Your task to perform on an android device: What is the news today? Image 0: 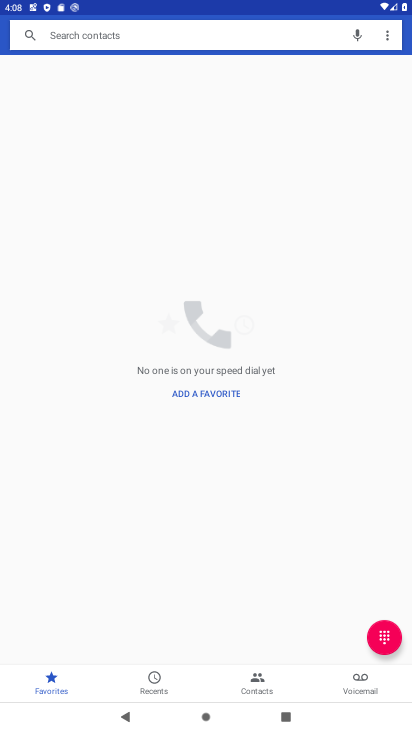
Step 0: press home button
Your task to perform on an android device: What is the news today? Image 1: 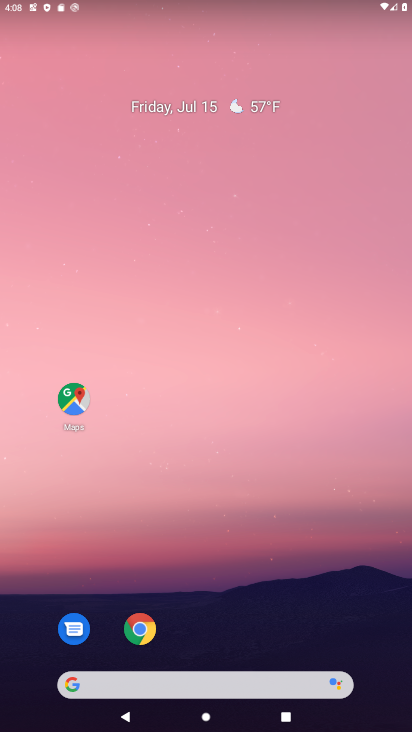
Step 1: click (72, 683)
Your task to perform on an android device: What is the news today? Image 2: 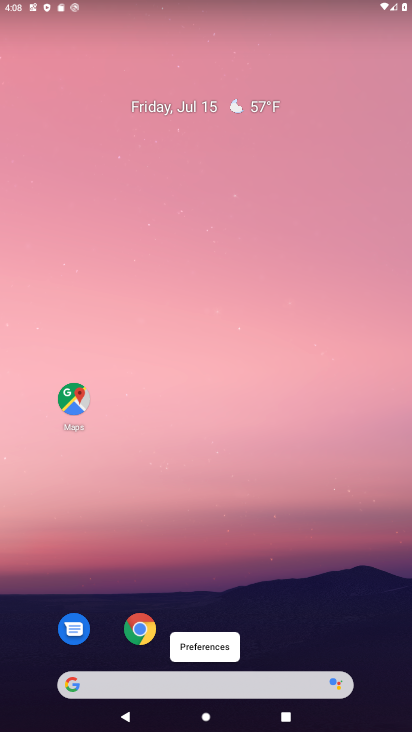
Step 2: click (72, 683)
Your task to perform on an android device: What is the news today? Image 3: 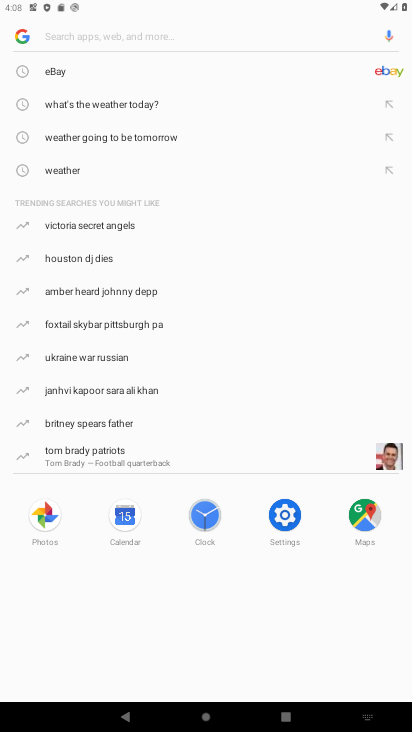
Step 3: type "What is the news today?"
Your task to perform on an android device: What is the news today? Image 4: 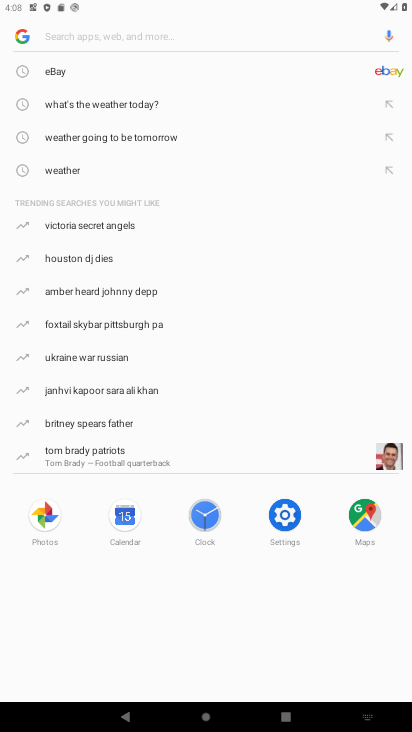
Step 4: click (97, 29)
Your task to perform on an android device: What is the news today? Image 5: 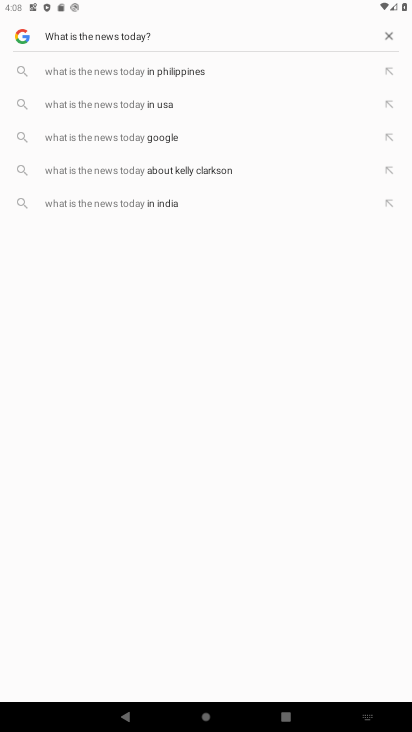
Step 5: press enter
Your task to perform on an android device: What is the news today? Image 6: 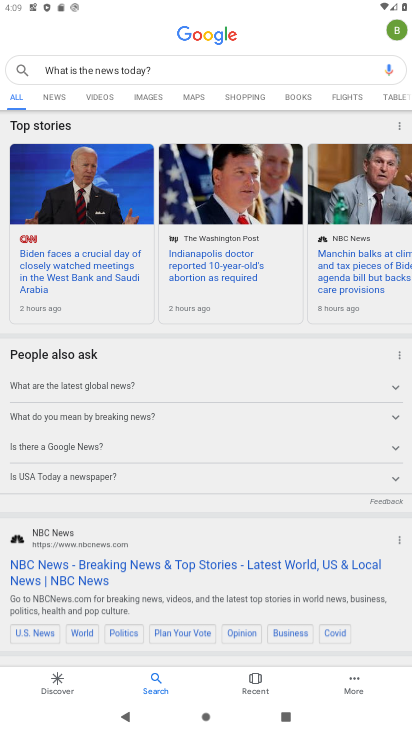
Step 6: task complete